Your task to perform on an android device: What's on my calendar tomorrow? Image 0: 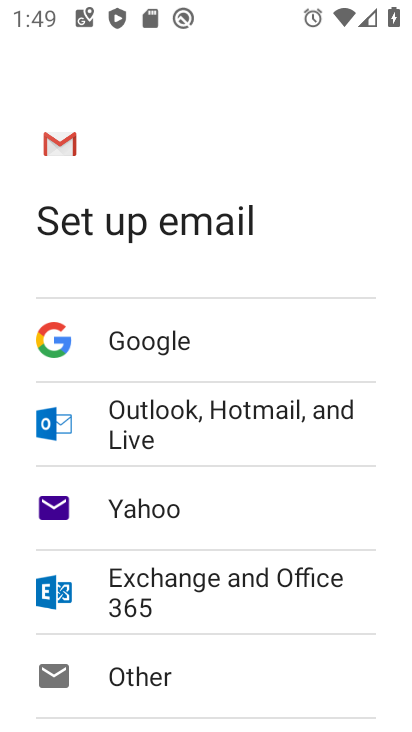
Step 0: press back button
Your task to perform on an android device: What's on my calendar tomorrow? Image 1: 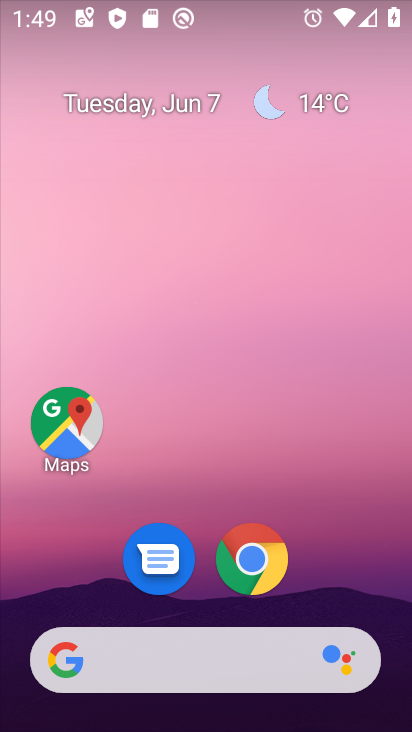
Step 1: drag from (347, 582) to (231, 29)
Your task to perform on an android device: What's on my calendar tomorrow? Image 2: 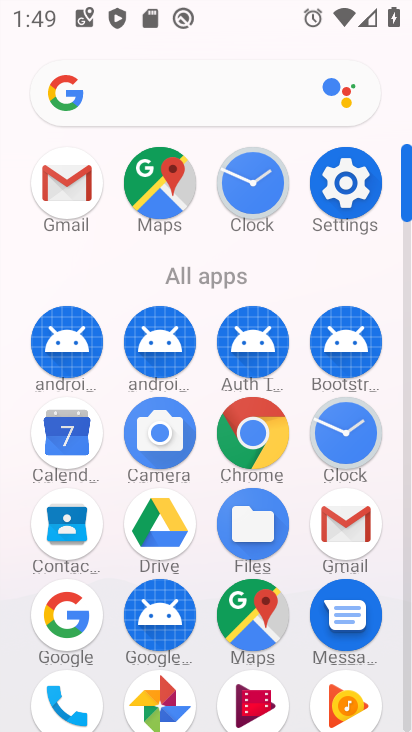
Step 2: click (68, 432)
Your task to perform on an android device: What's on my calendar tomorrow? Image 3: 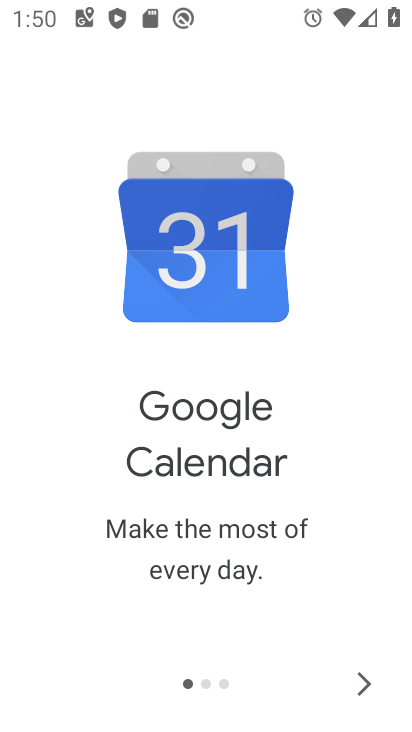
Step 3: click (368, 681)
Your task to perform on an android device: What's on my calendar tomorrow? Image 4: 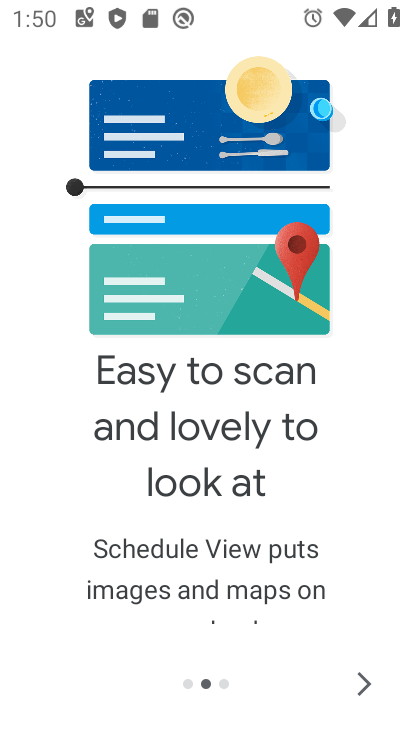
Step 4: click (368, 681)
Your task to perform on an android device: What's on my calendar tomorrow? Image 5: 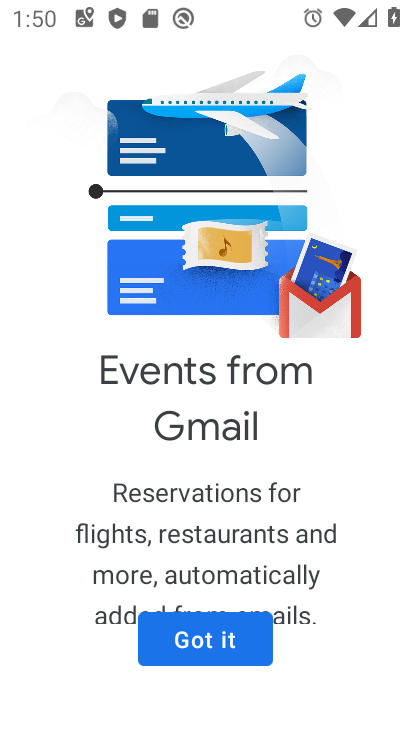
Step 5: click (249, 647)
Your task to perform on an android device: What's on my calendar tomorrow? Image 6: 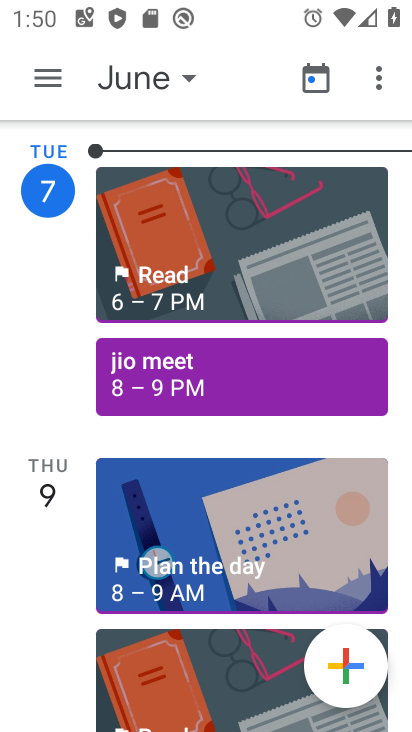
Step 6: click (188, 71)
Your task to perform on an android device: What's on my calendar tomorrow? Image 7: 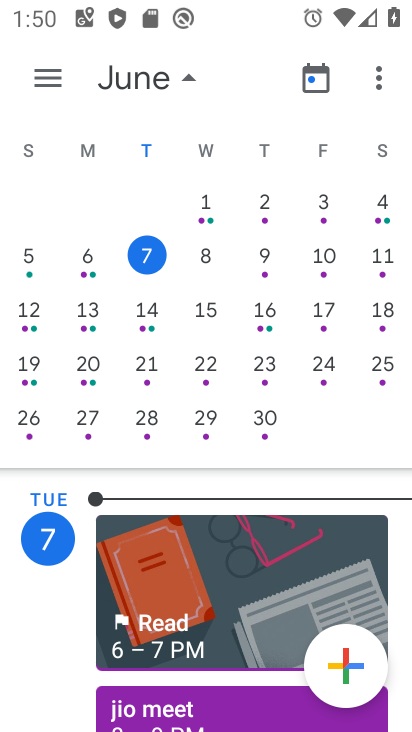
Step 7: click (216, 256)
Your task to perform on an android device: What's on my calendar tomorrow? Image 8: 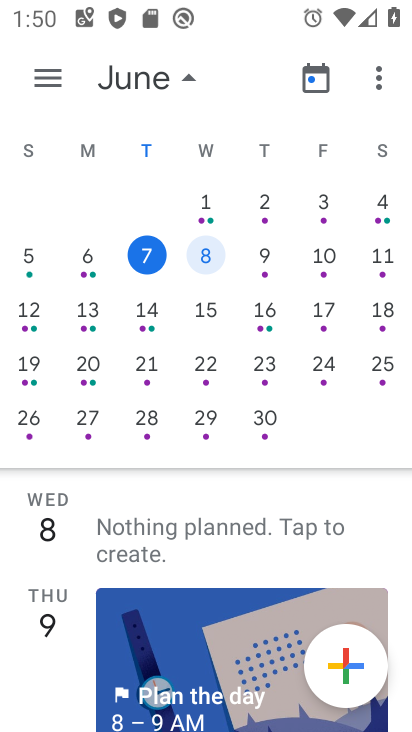
Step 8: click (48, 82)
Your task to perform on an android device: What's on my calendar tomorrow? Image 9: 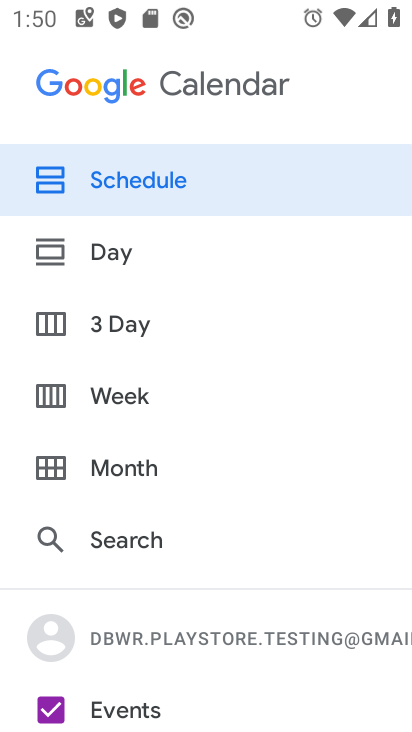
Step 9: click (107, 171)
Your task to perform on an android device: What's on my calendar tomorrow? Image 10: 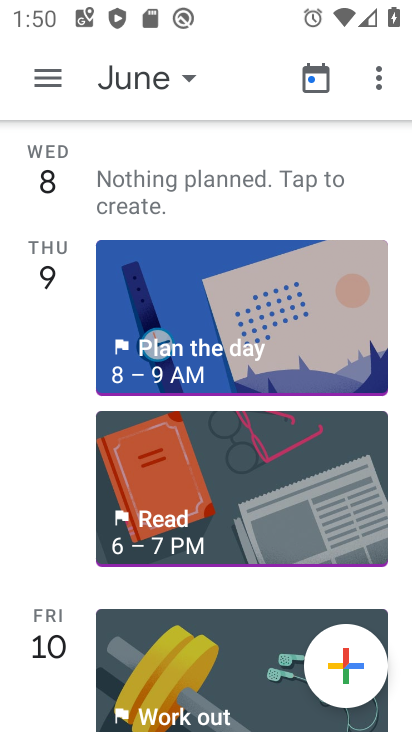
Step 10: task complete